Your task to perform on an android device: empty trash in the gmail app Image 0: 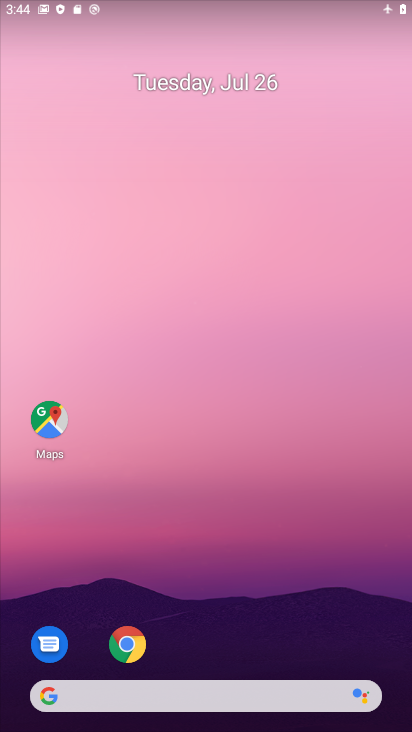
Step 0: drag from (390, 651) to (354, 151)
Your task to perform on an android device: empty trash in the gmail app Image 1: 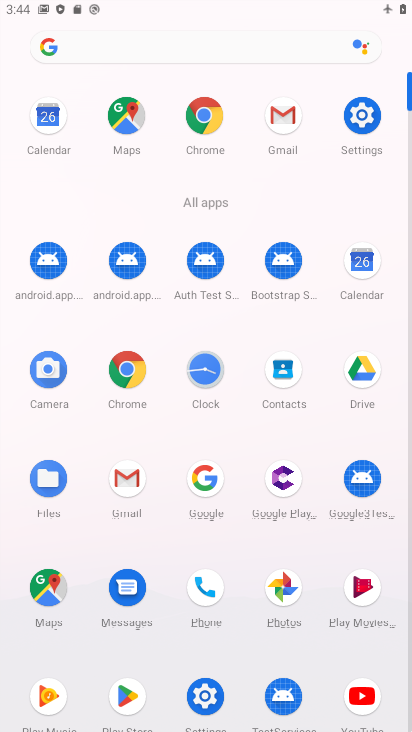
Step 1: click (125, 475)
Your task to perform on an android device: empty trash in the gmail app Image 2: 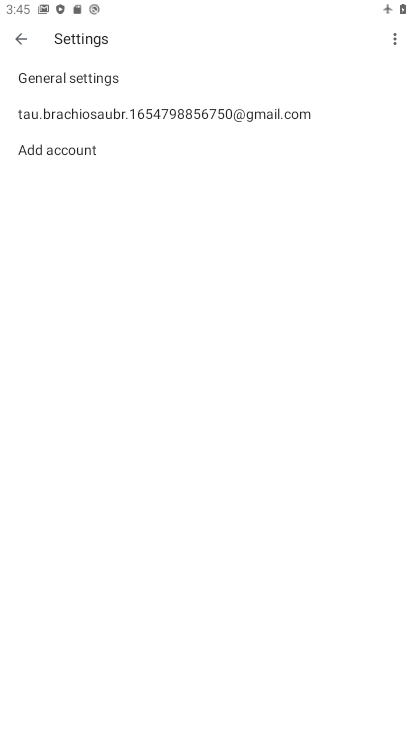
Step 2: press back button
Your task to perform on an android device: empty trash in the gmail app Image 3: 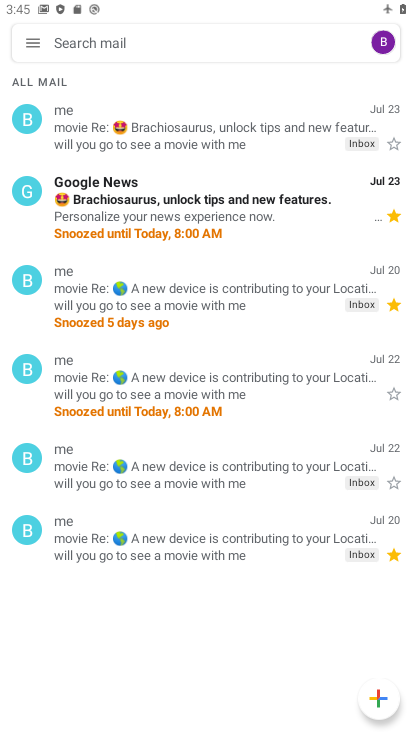
Step 3: click (38, 44)
Your task to perform on an android device: empty trash in the gmail app Image 4: 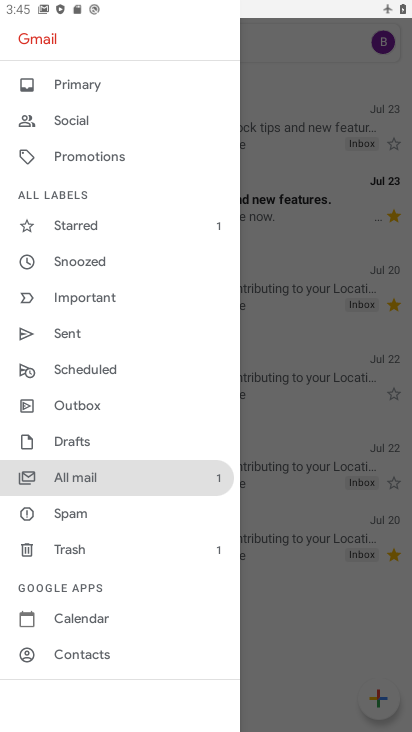
Step 4: click (75, 551)
Your task to perform on an android device: empty trash in the gmail app Image 5: 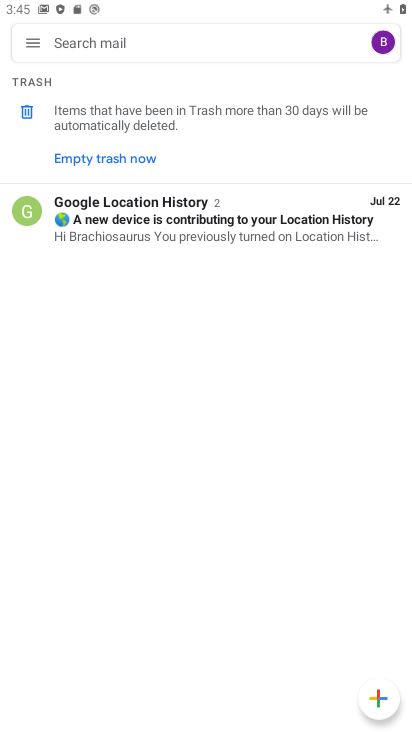
Step 5: click (99, 161)
Your task to perform on an android device: empty trash in the gmail app Image 6: 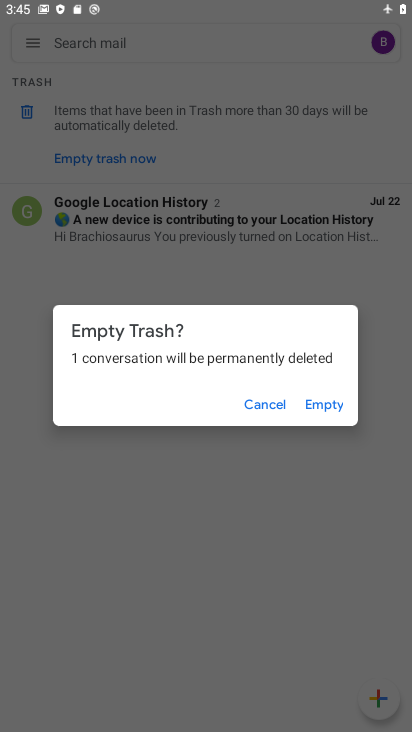
Step 6: click (319, 404)
Your task to perform on an android device: empty trash in the gmail app Image 7: 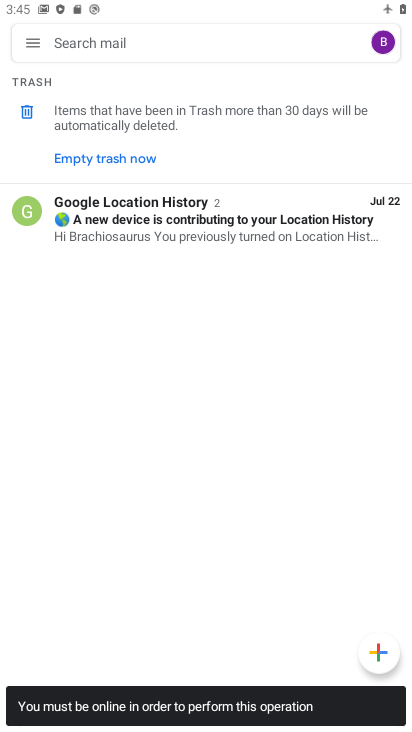
Step 7: task complete